Your task to perform on an android device: empty trash in google photos Image 0: 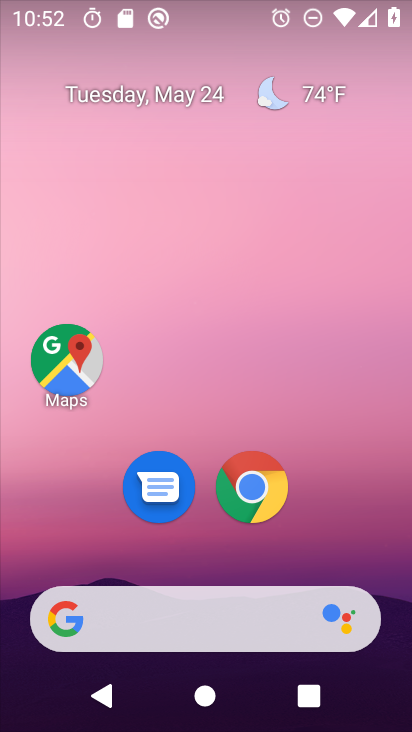
Step 0: drag from (352, 566) to (379, 8)
Your task to perform on an android device: empty trash in google photos Image 1: 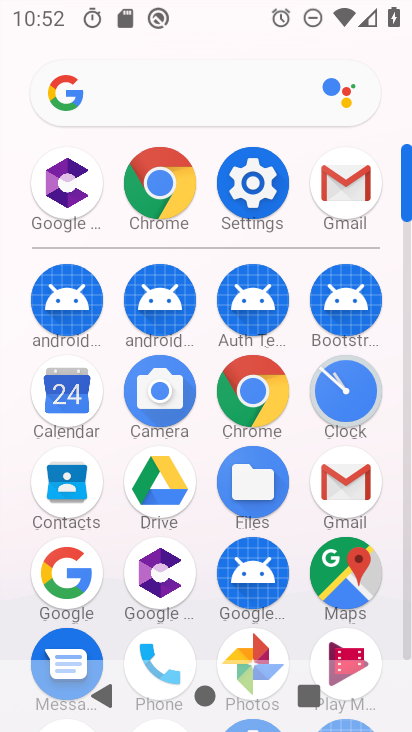
Step 1: click (406, 579)
Your task to perform on an android device: empty trash in google photos Image 2: 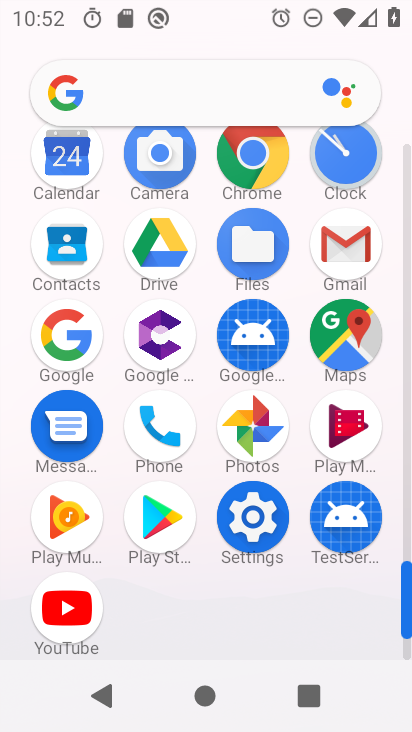
Step 2: click (248, 426)
Your task to perform on an android device: empty trash in google photos Image 3: 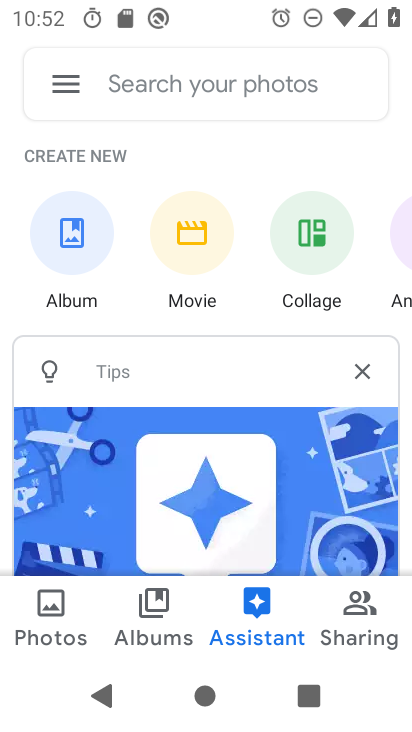
Step 3: click (55, 76)
Your task to perform on an android device: empty trash in google photos Image 4: 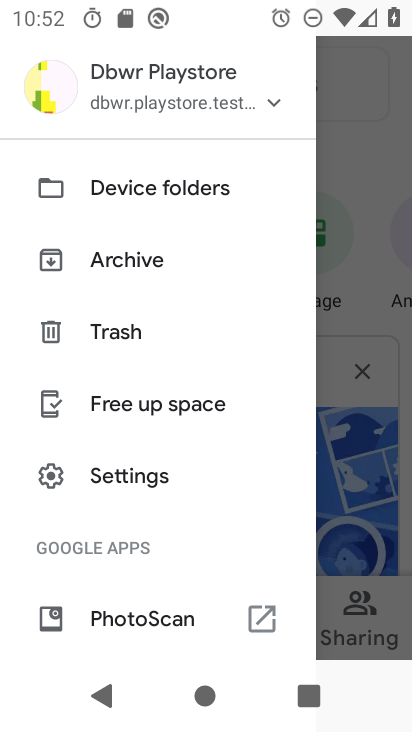
Step 4: click (103, 335)
Your task to perform on an android device: empty trash in google photos Image 5: 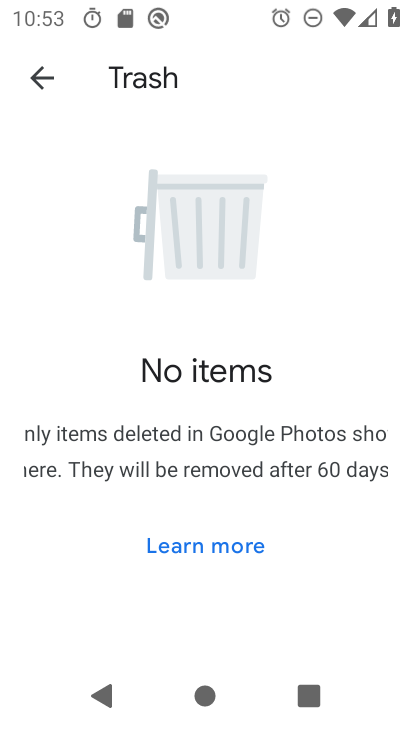
Step 5: task complete